Your task to perform on an android device: Open the calendar app, open the side menu, and click the "Day" option Image 0: 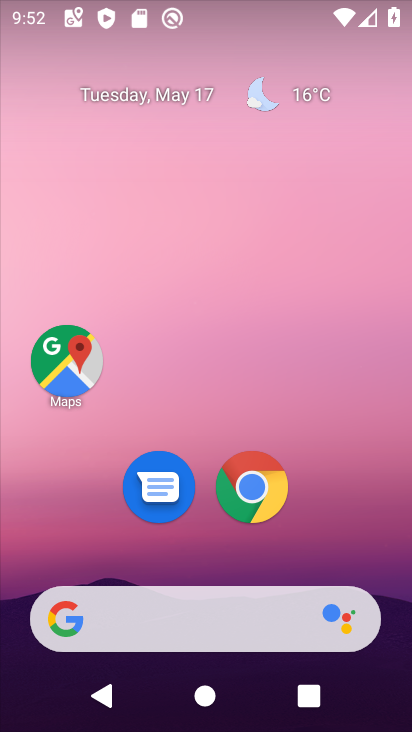
Step 0: drag from (220, 536) to (192, 29)
Your task to perform on an android device: Open the calendar app, open the side menu, and click the "Day" option Image 1: 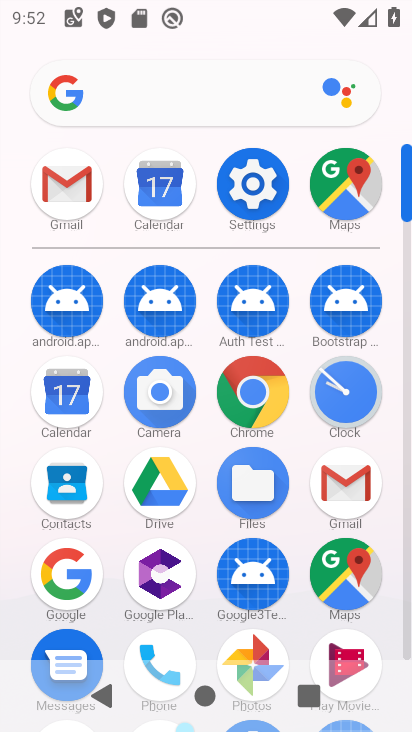
Step 1: drag from (208, 506) to (212, 297)
Your task to perform on an android device: Open the calendar app, open the side menu, and click the "Day" option Image 2: 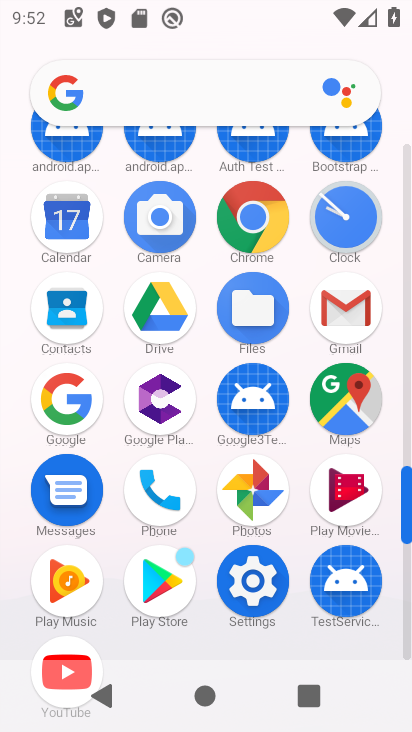
Step 2: click (75, 222)
Your task to perform on an android device: Open the calendar app, open the side menu, and click the "Day" option Image 3: 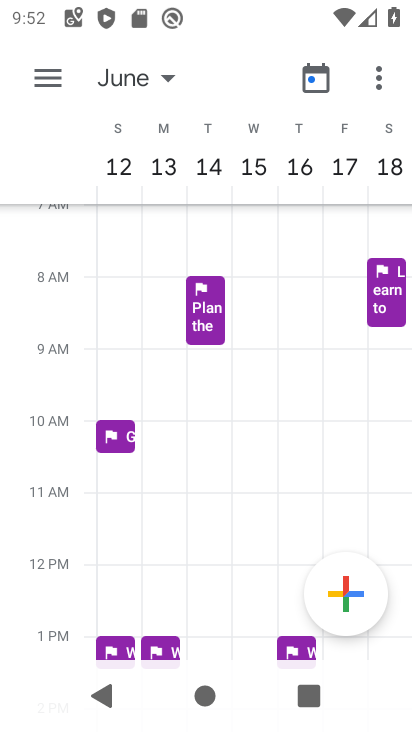
Step 3: click (39, 64)
Your task to perform on an android device: Open the calendar app, open the side menu, and click the "Day" option Image 4: 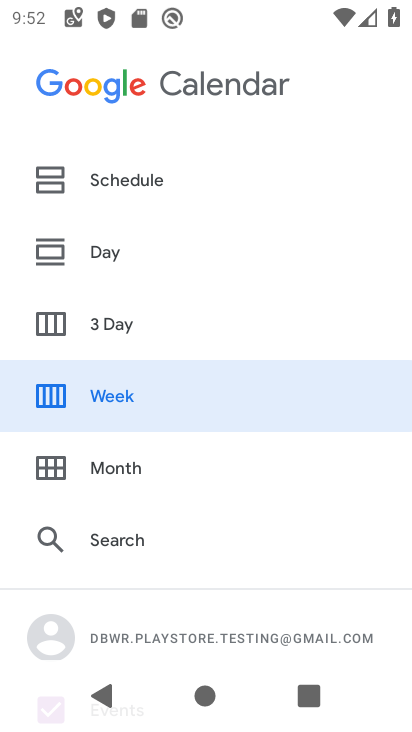
Step 4: click (129, 253)
Your task to perform on an android device: Open the calendar app, open the side menu, and click the "Day" option Image 5: 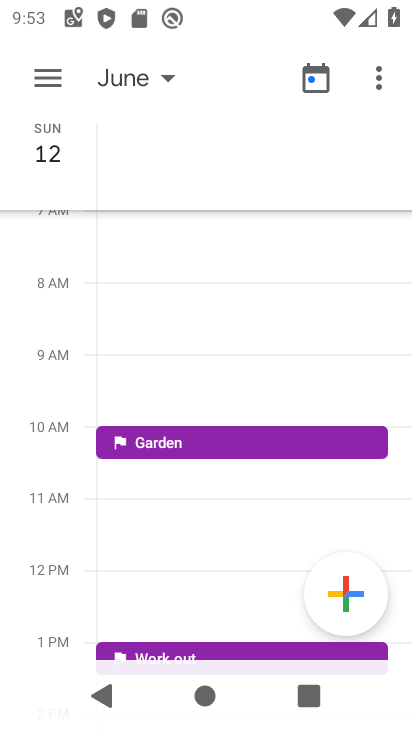
Step 5: task complete